Your task to perform on an android device: Go to settings Image 0: 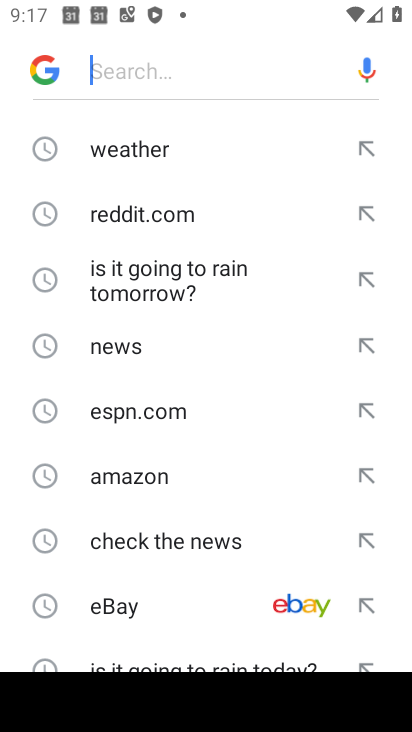
Step 0: press home button
Your task to perform on an android device: Go to settings Image 1: 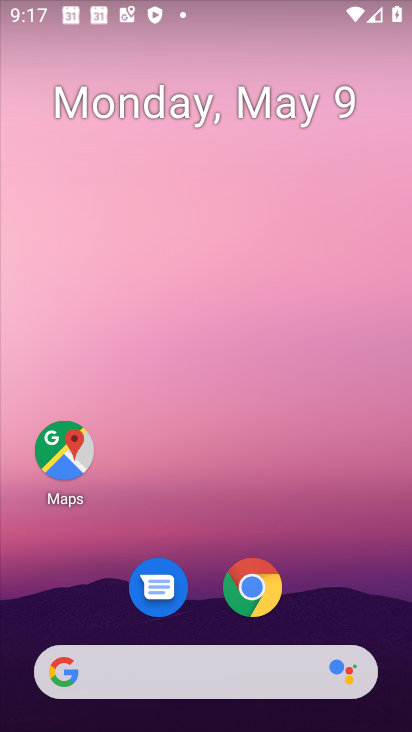
Step 1: drag from (208, 554) to (207, 44)
Your task to perform on an android device: Go to settings Image 2: 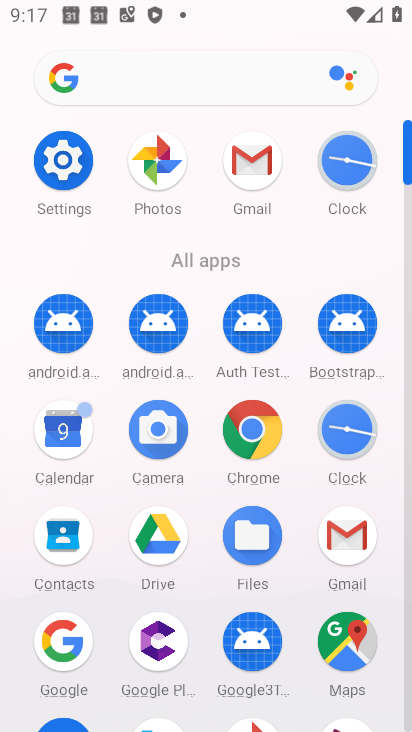
Step 2: click (42, 219)
Your task to perform on an android device: Go to settings Image 3: 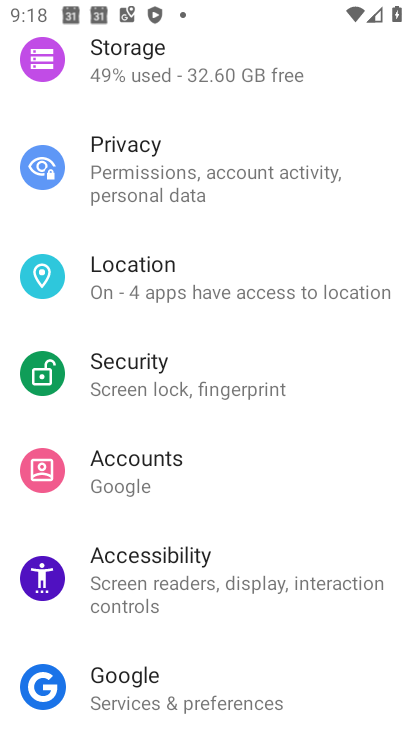
Step 3: task complete